Your task to perform on an android device: Open Youtube and go to "Your channel" Image 0: 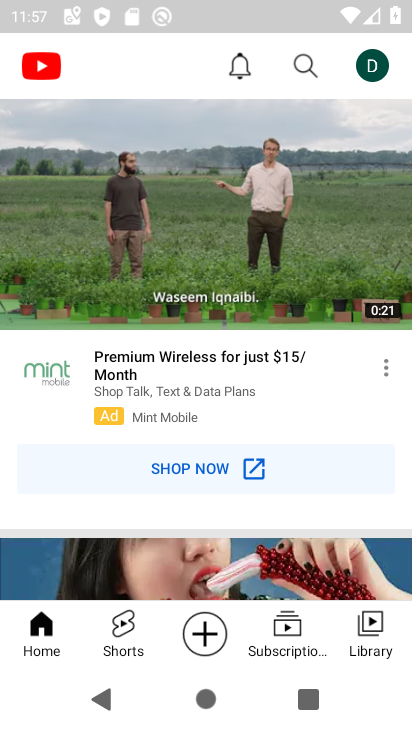
Step 0: press home button
Your task to perform on an android device: Open Youtube and go to "Your channel" Image 1: 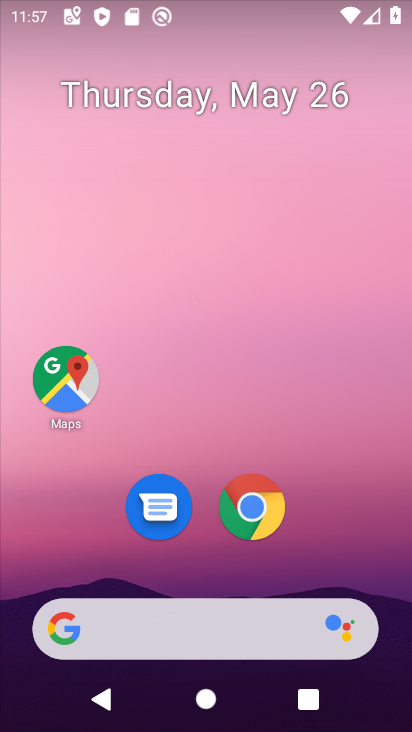
Step 1: drag from (365, 451) to (355, 99)
Your task to perform on an android device: Open Youtube and go to "Your channel" Image 2: 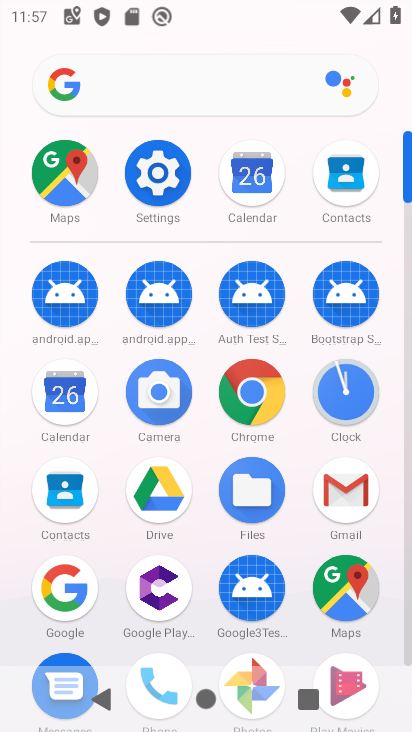
Step 2: drag from (373, 610) to (354, 380)
Your task to perform on an android device: Open Youtube and go to "Your channel" Image 3: 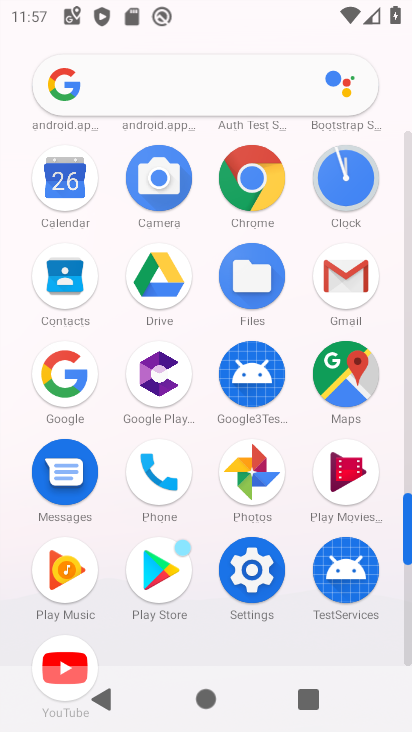
Step 3: click (67, 660)
Your task to perform on an android device: Open Youtube and go to "Your channel" Image 4: 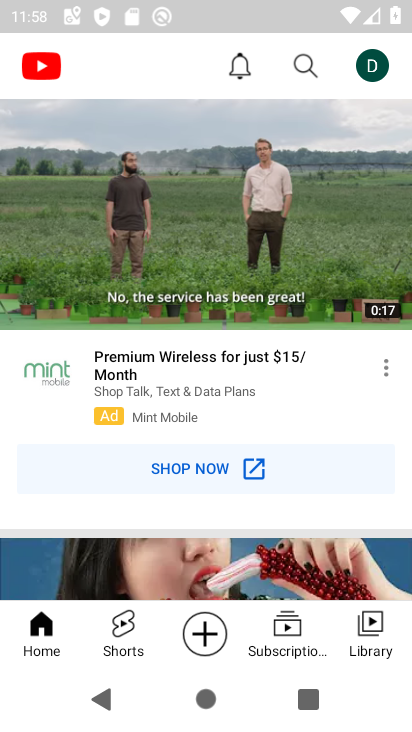
Step 4: click (364, 54)
Your task to perform on an android device: Open Youtube and go to "Your channel" Image 5: 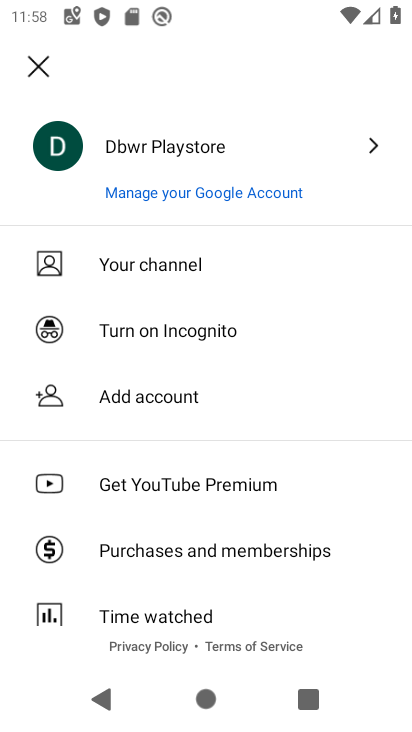
Step 5: click (193, 253)
Your task to perform on an android device: Open Youtube and go to "Your channel" Image 6: 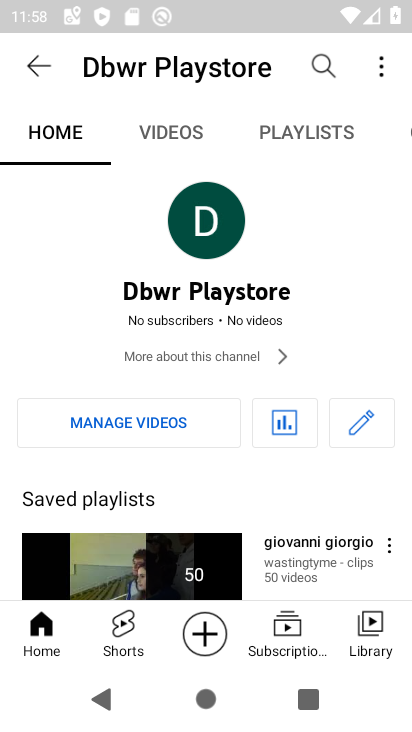
Step 6: task complete